Your task to perform on an android device: Open Maps and search for coffee Image 0: 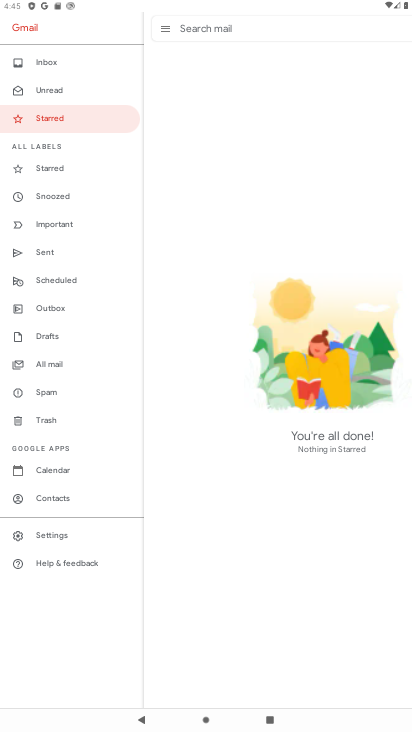
Step 0: press home button
Your task to perform on an android device: Open Maps and search for coffee Image 1: 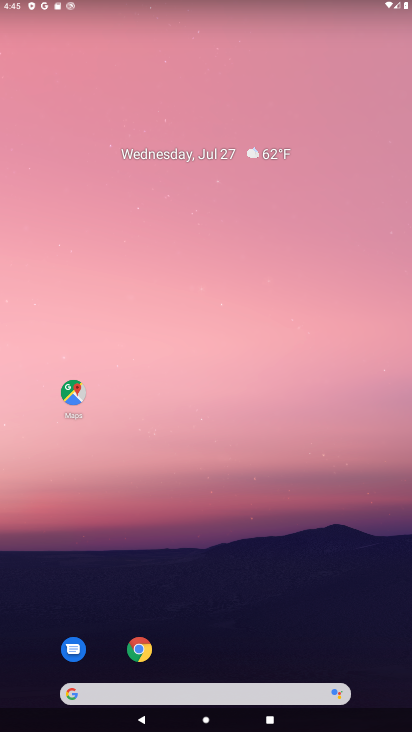
Step 1: click (67, 399)
Your task to perform on an android device: Open Maps and search for coffee Image 2: 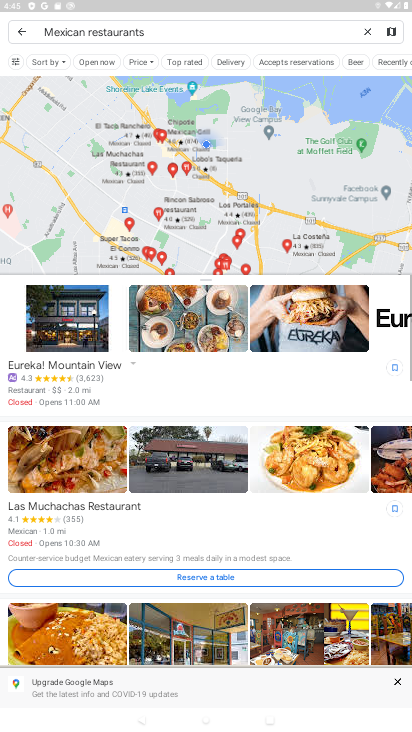
Step 2: click (372, 30)
Your task to perform on an android device: Open Maps and search for coffee Image 3: 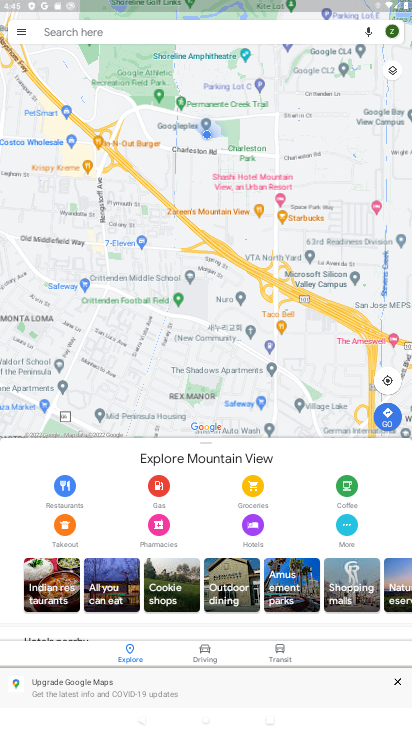
Step 3: type "coffee"
Your task to perform on an android device: Open Maps and search for coffee Image 4: 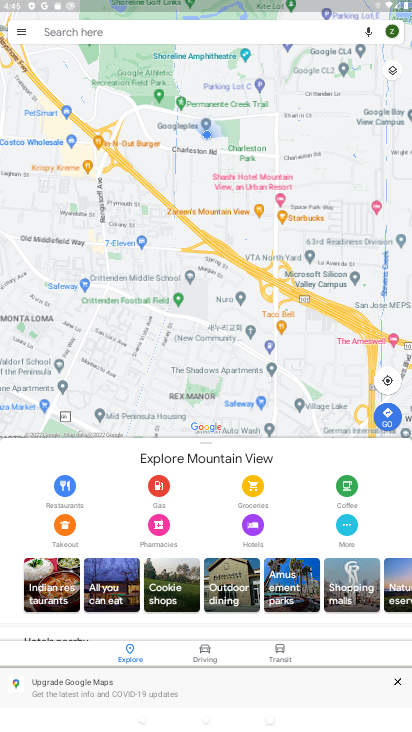
Step 4: press enter
Your task to perform on an android device: Open Maps and search for coffee Image 5: 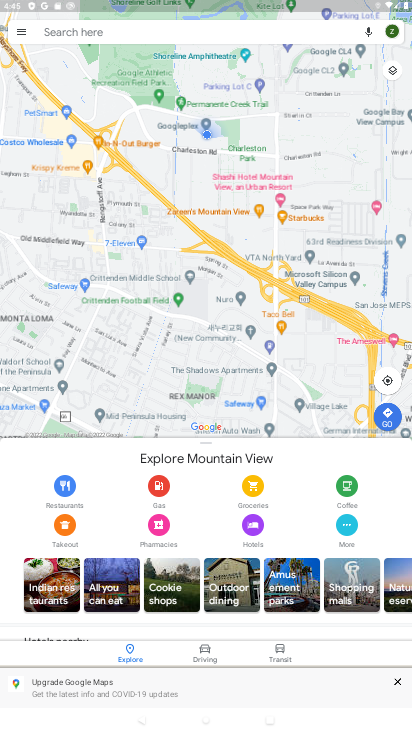
Step 5: click (102, 30)
Your task to perform on an android device: Open Maps and search for coffee Image 6: 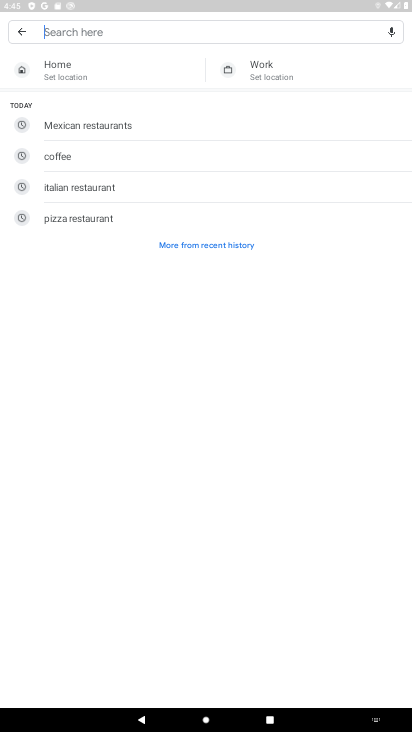
Step 6: type "coffee"
Your task to perform on an android device: Open Maps and search for coffee Image 7: 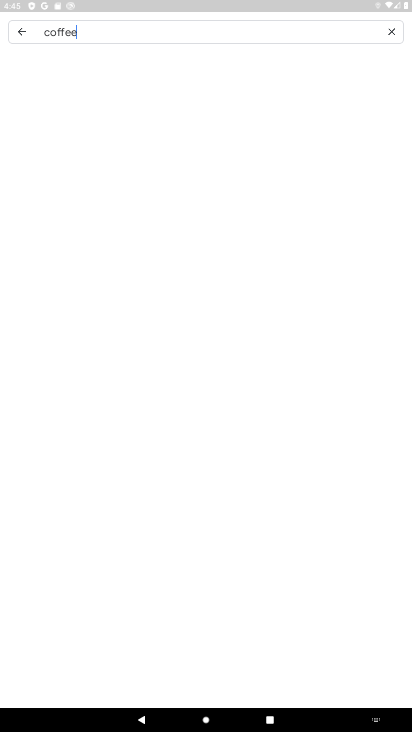
Step 7: type ""
Your task to perform on an android device: Open Maps and search for coffee Image 8: 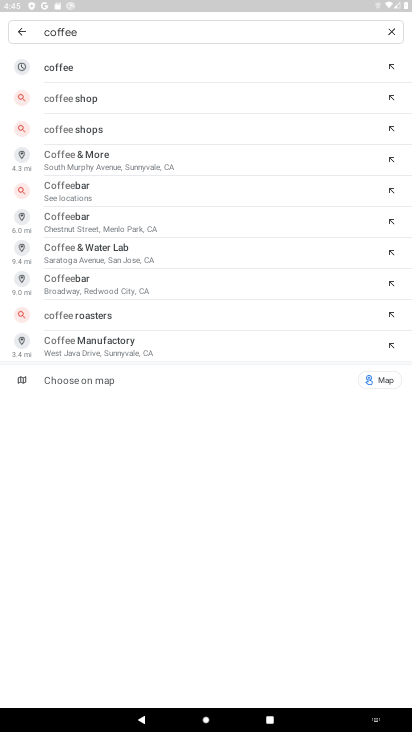
Step 8: press enter
Your task to perform on an android device: Open Maps and search for coffee Image 9: 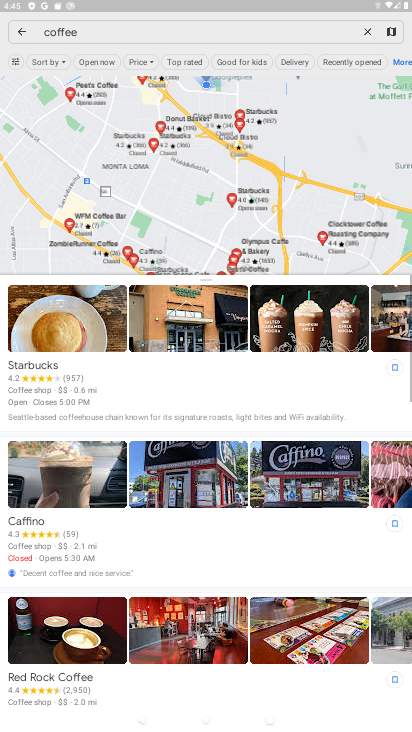
Step 9: task complete